Your task to perform on an android device: Open Chrome and go to the settings page Image 0: 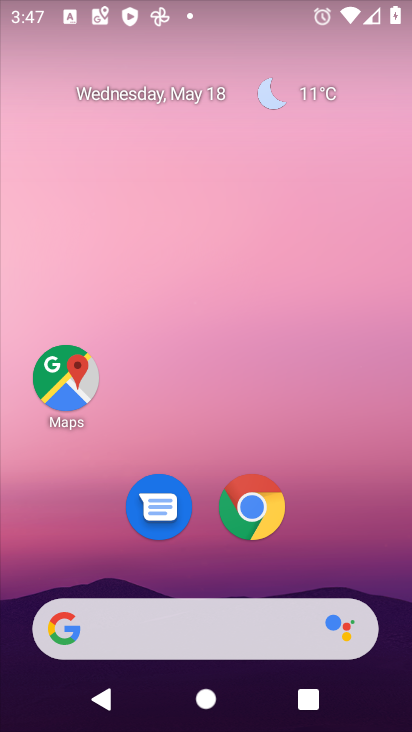
Step 0: click (253, 511)
Your task to perform on an android device: Open Chrome and go to the settings page Image 1: 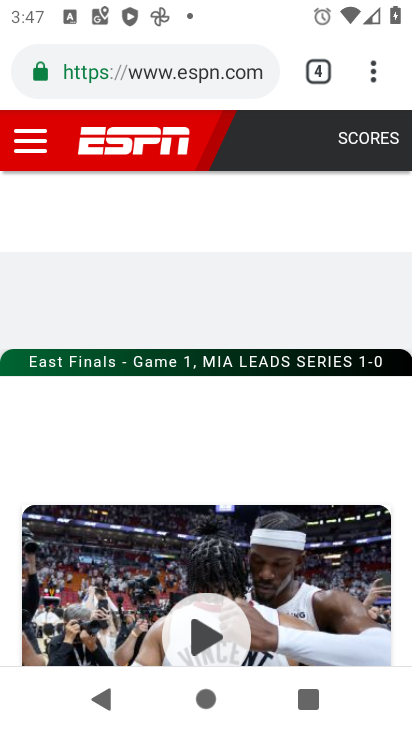
Step 1: click (369, 75)
Your task to perform on an android device: Open Chrome and go to the settings page Image 2: 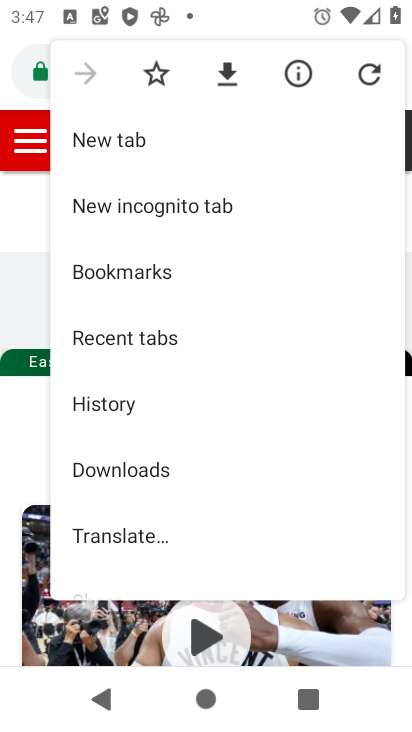
Step 2: drag from (224, 530) to (217, 214)
Your task to perform on an android device: Open Chrome and go to the settings page Image 3: 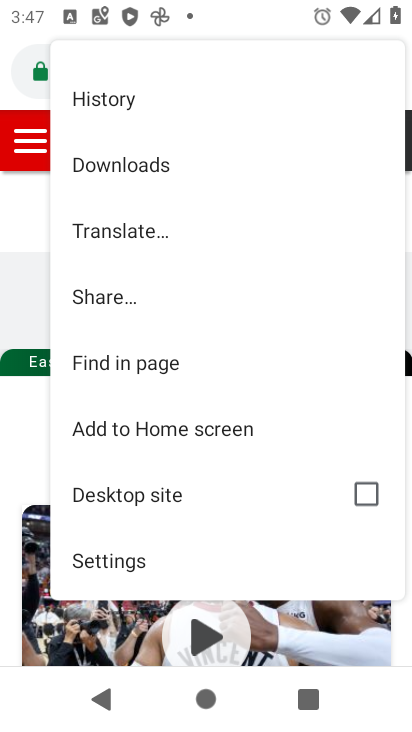
Step 3: drag from (242, 506) to (255, 211)
Your task to perform on an android device: Open Chrome and go to the settings page Image 4: 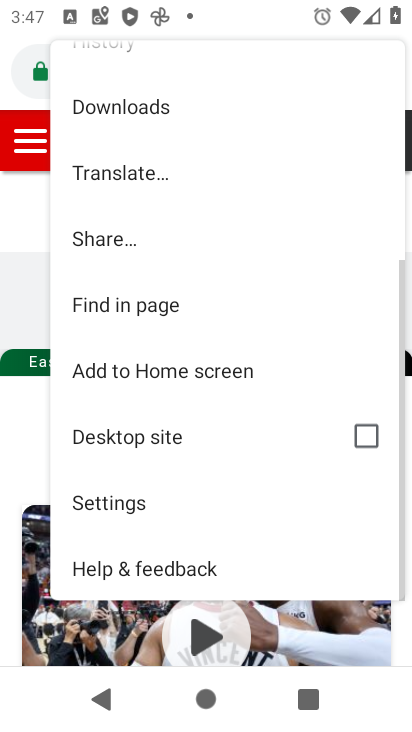
Step 4: click (118, 506)
Your task to perform on an android device: Open Chrome and go to the settings page Image 5: 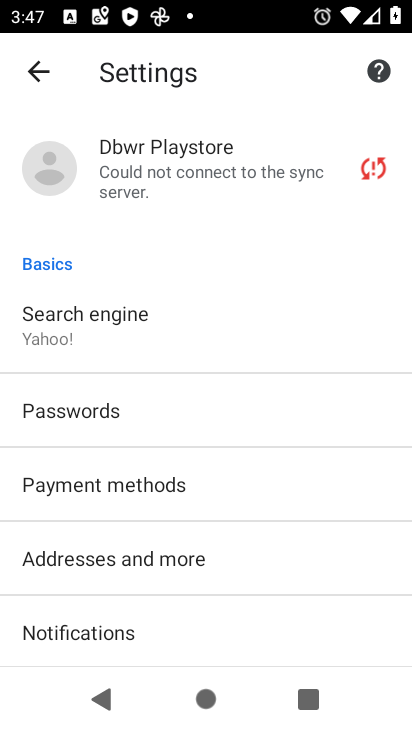
Step 5: task complete